Your task to perform on an android device: snooze an email in the gmail app Image 0: 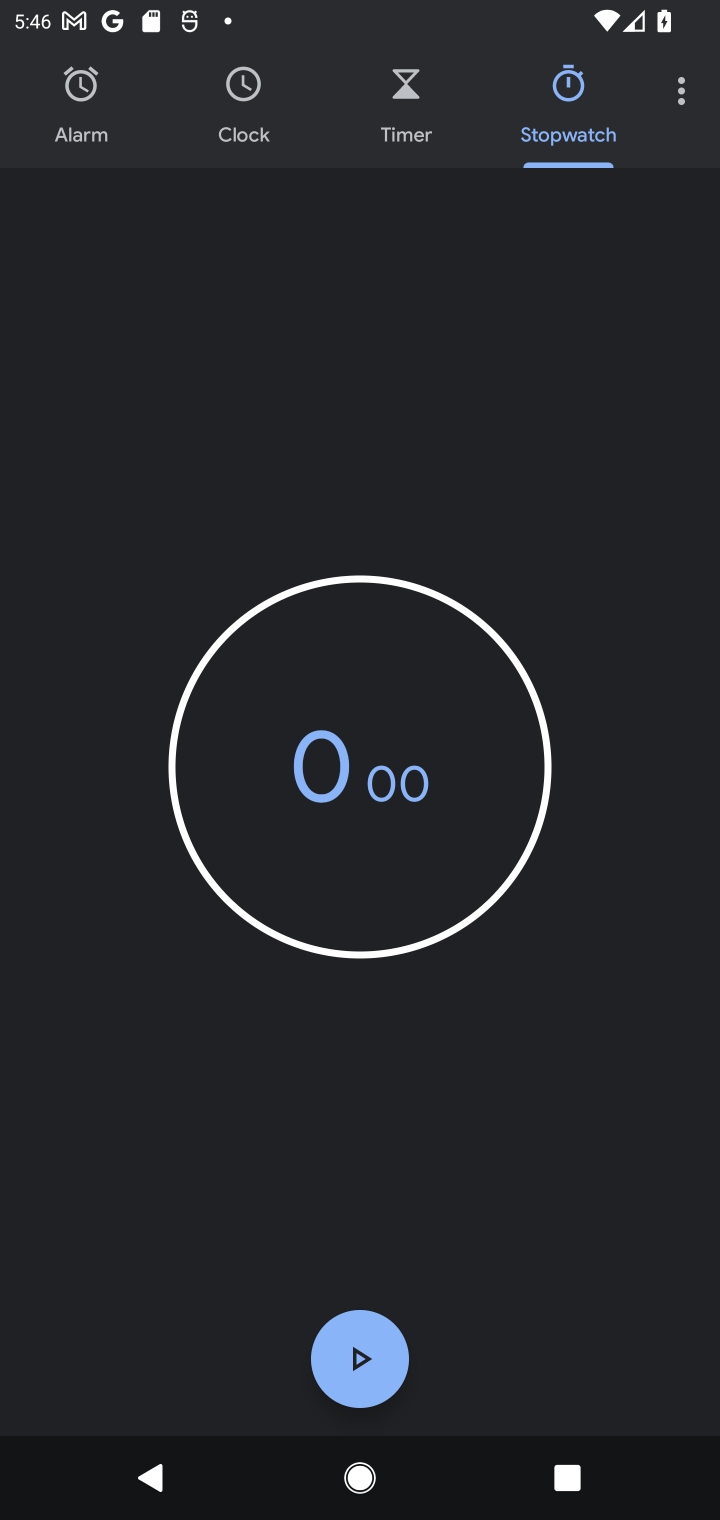
Step 0: press home button
Your task to perform on an android device: snooze an email in the gmail app Image 1: 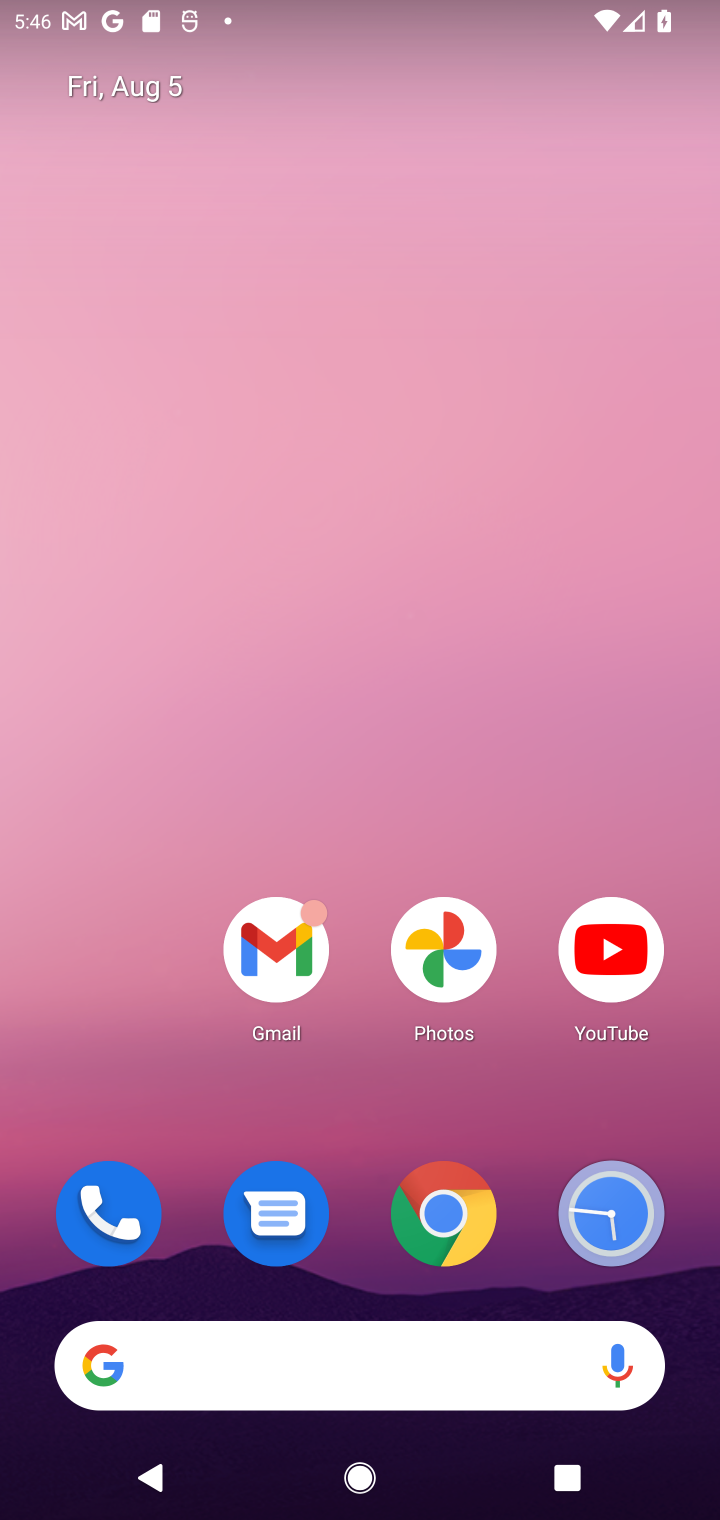
Step 1: click (283, 1018)
Your task to perform on an android device: snooze an email in the gmail app Image 2: 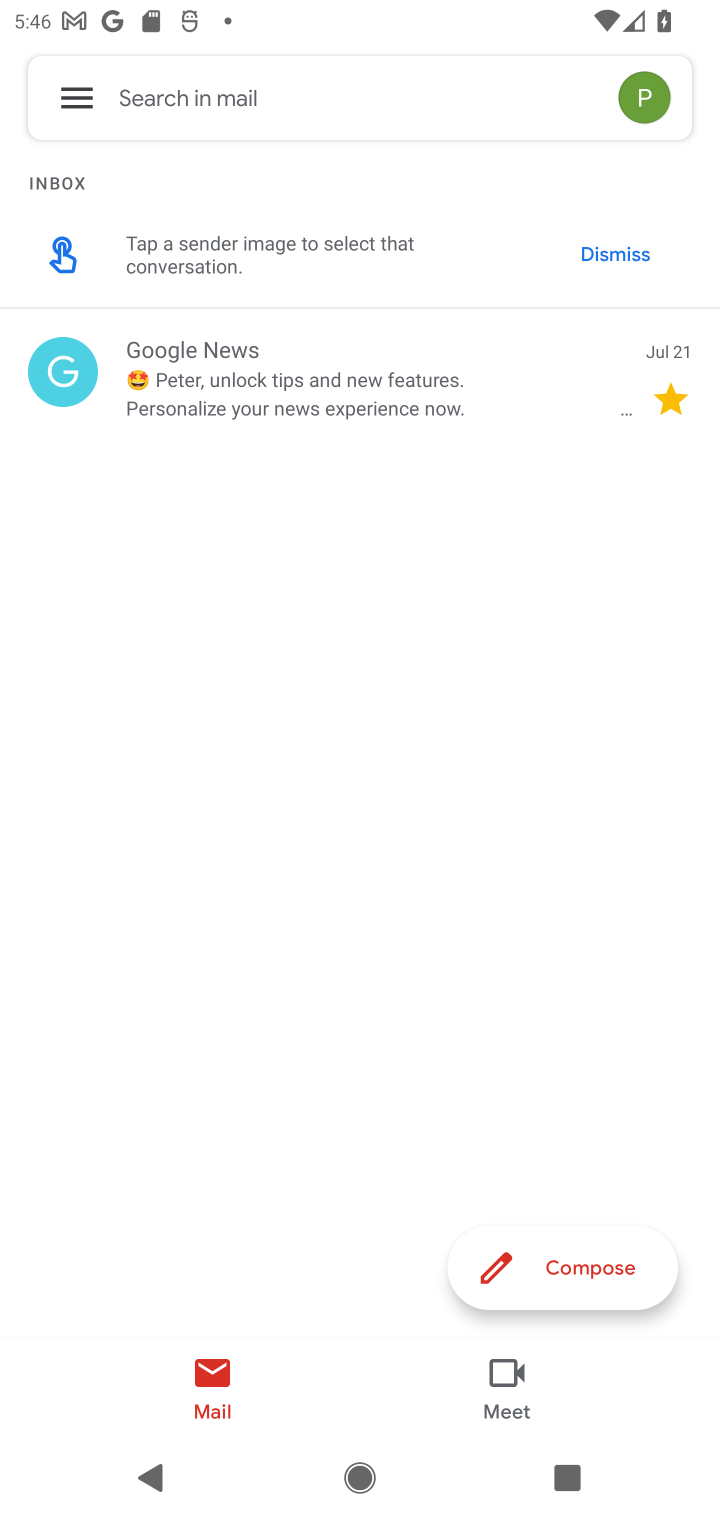
Step 2: click (86, 138)
Your task to perform on an android device: snooze an email in the gmail app Image 3: 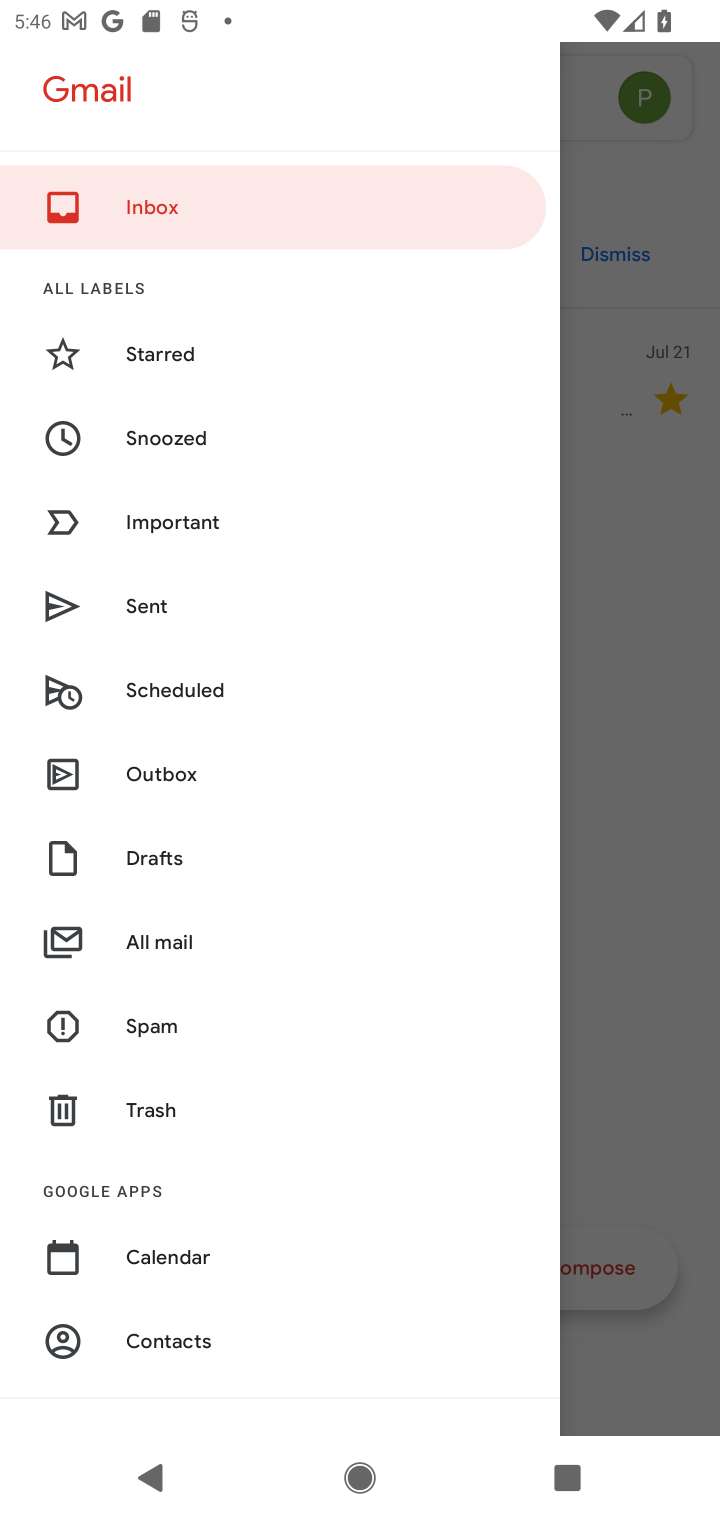
Step 3: drag from (160, 1173) to (187, 715)
Your task to perform on an android device: snooze an email in the gmail app Image 4: 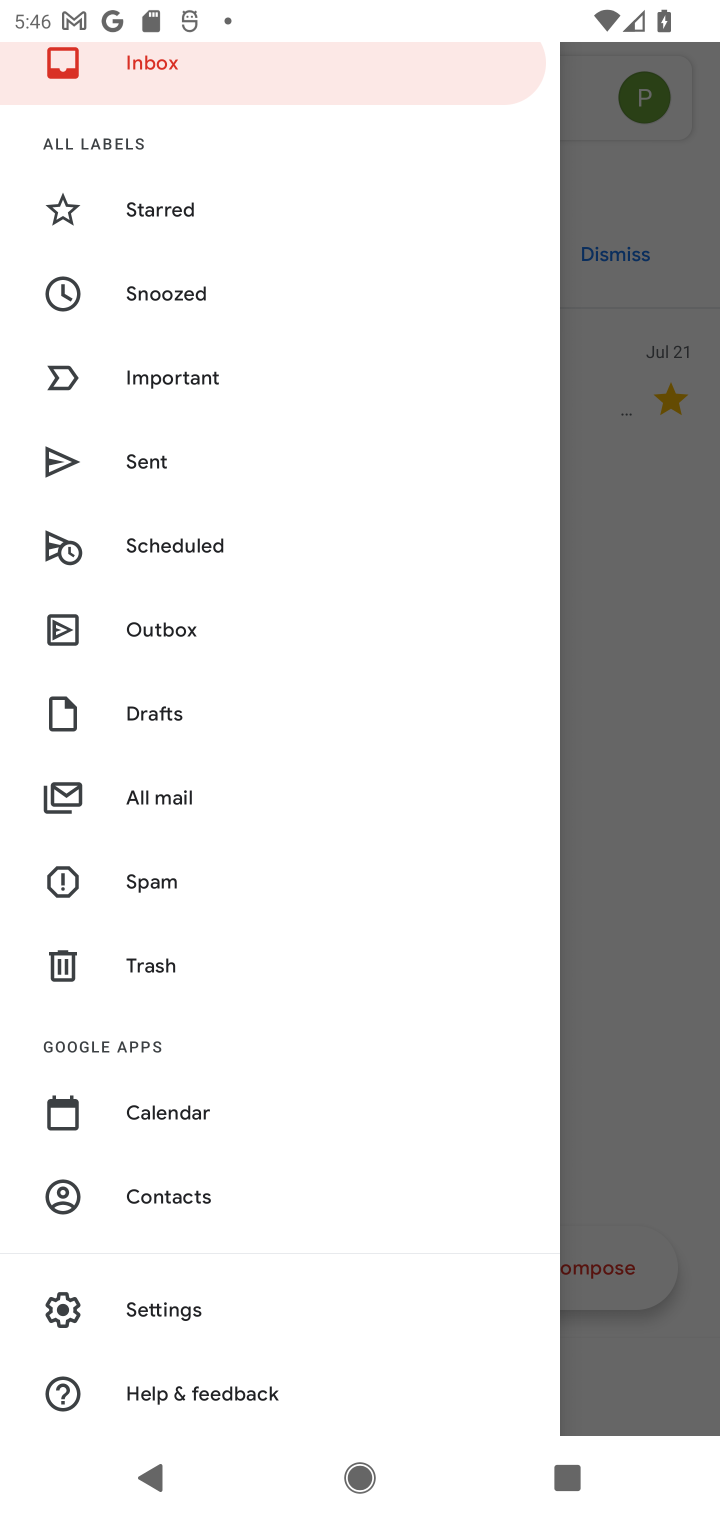
Step 4: click (219, 1304)
Your task to perform on an android device: snooze an email in the gmail app Image 5: 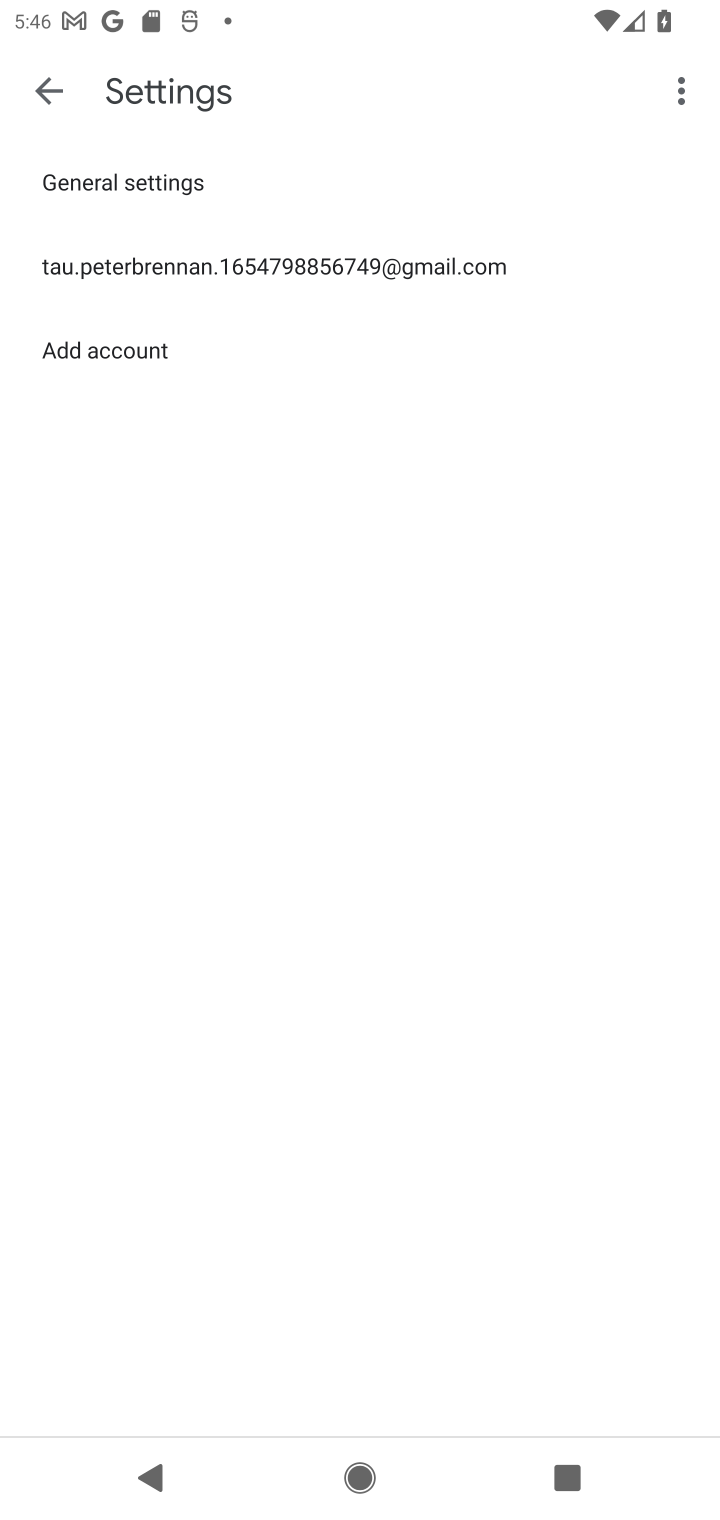
Step 5: task complete